Your task to perform on an android device: Go to display settings Image 0: 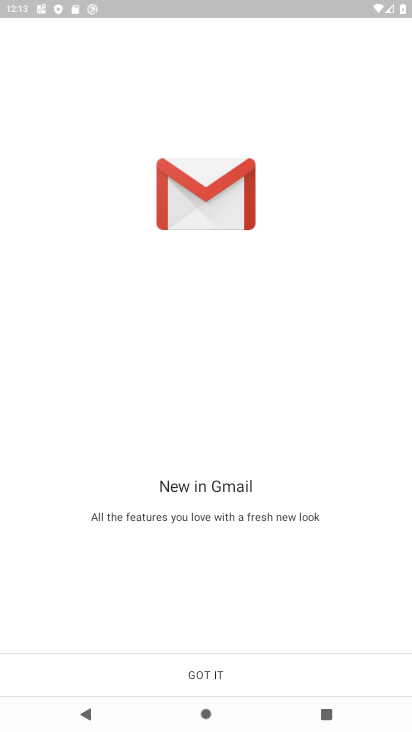
Step 0: press home button
Your task to perform on an android device: Go to display settings Image 1: 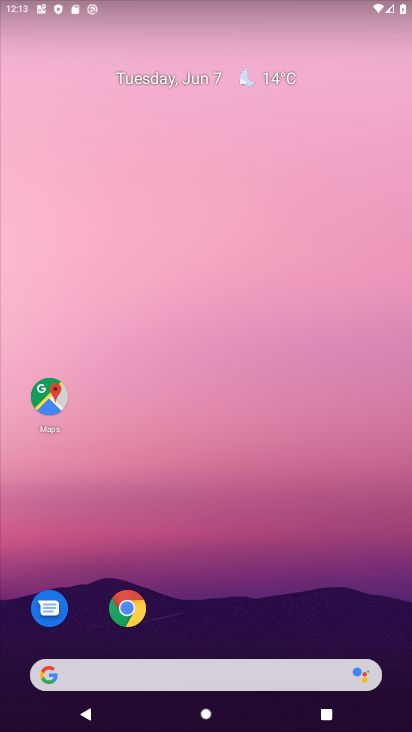
Step 1: drag from (181, 633) to (303, 161)
Your task to perform on an android device: Go to display settings Image 2: 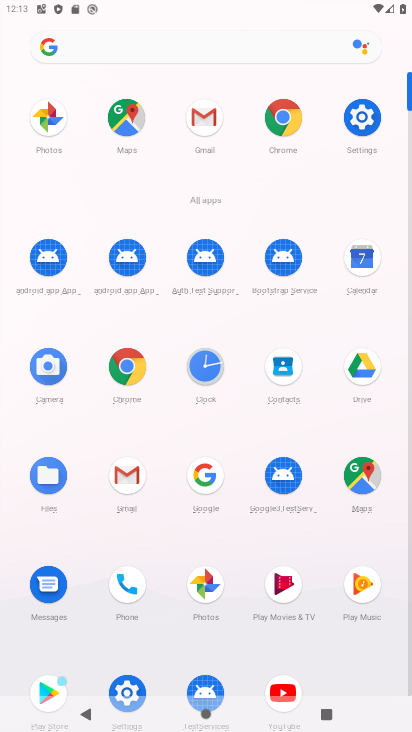
Step 2: click (134, 691)
Your task to perform on an android device: Go to display settings Image 3: 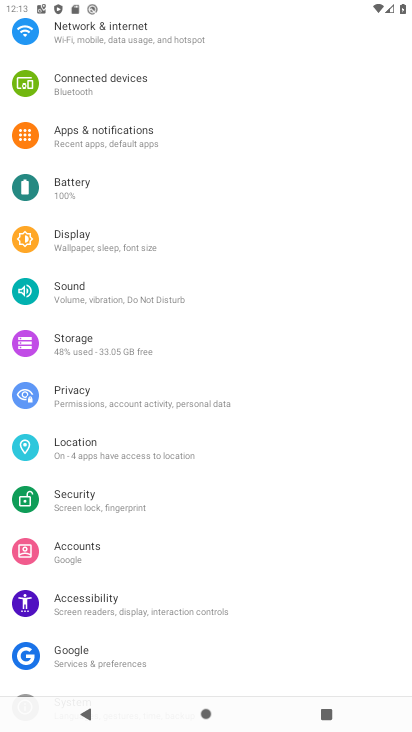
Step 3: click (132, 243)
Your task to perform on an android device: Go to display settings Image 4: 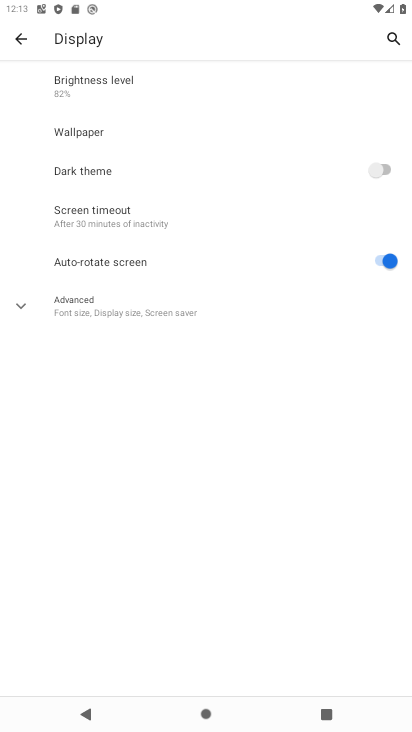
Step 4: click (168, 307)
Your task to perform on an android device: Go to display settings Image 5: 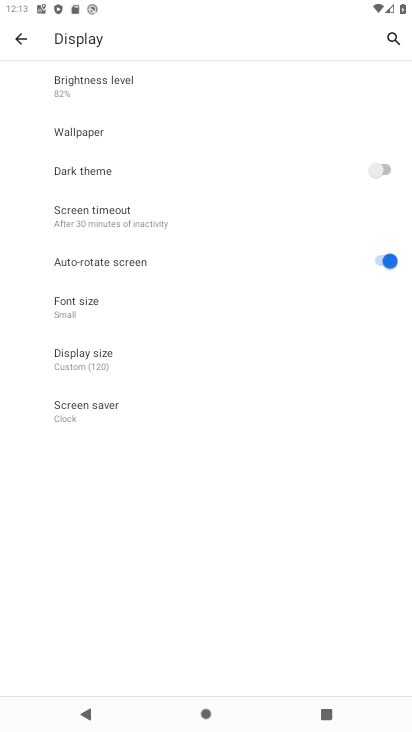
Step 5: task complete